Your task to perform on an android device: delete location history Image 0: 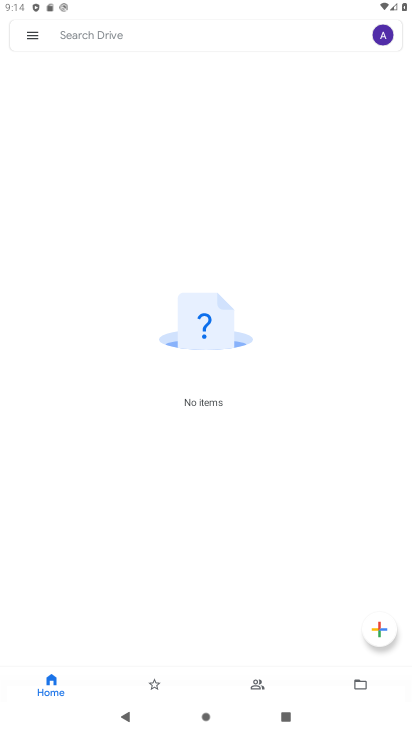
Step 0: press home button
Your task to perform on an android device: delete location history Image 1: 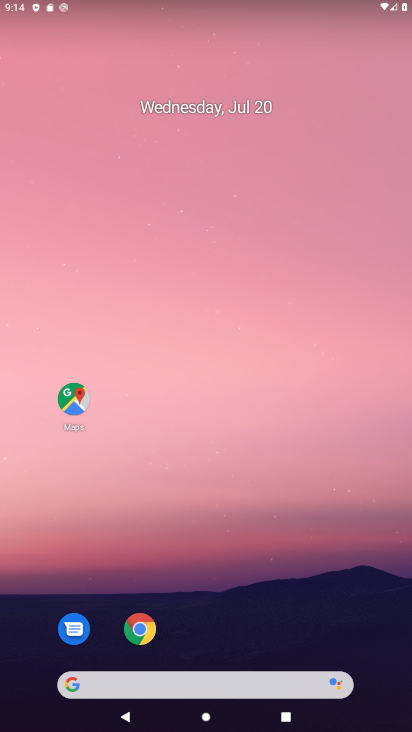
Step 1: drag from (247, 671) to (150, 12)
Your task to perform on an android device: delete location history Image 2: 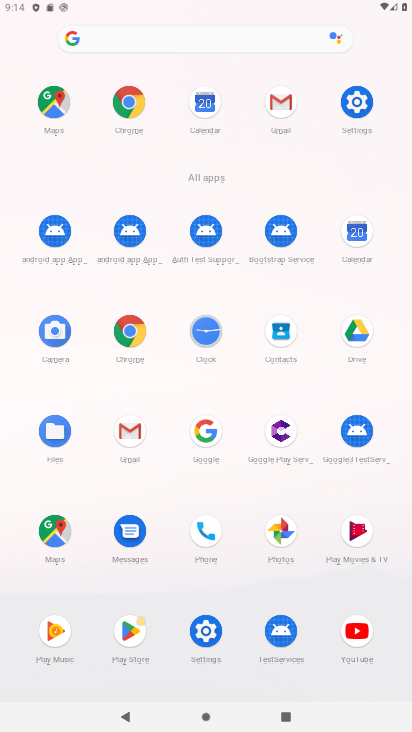
Step 2: click (58, 525)
Your task to perform on an android device: delete location history Image 3: 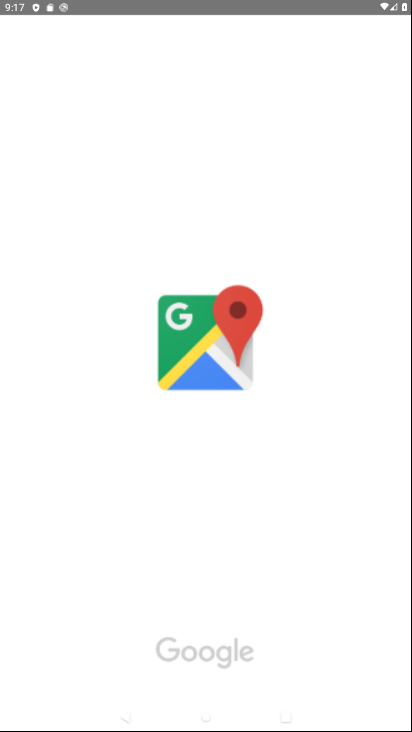
Step 3: task complete